Your task to perform on an android device: Go to settings Image 0: 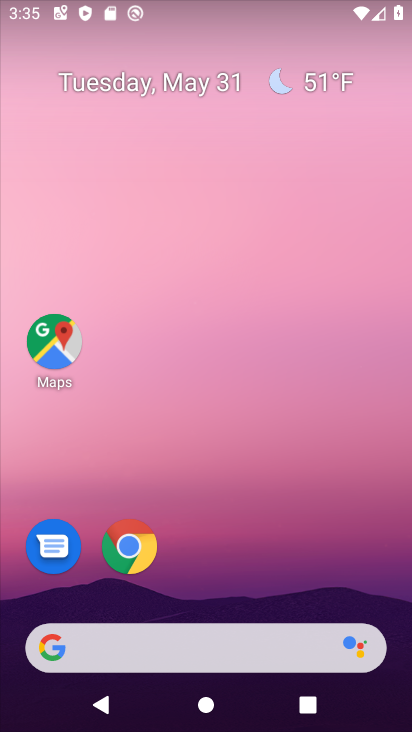
Step 0: drag from (198, 581) to (12, 0)
Your task to perform on an android device: Go to settings Image 1: 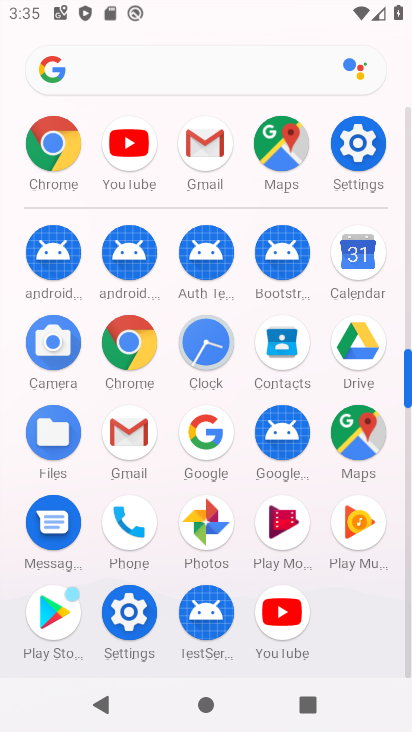
Step 1: click (357, 149)
Your task to perform on an android device: Go to settings Image 2: 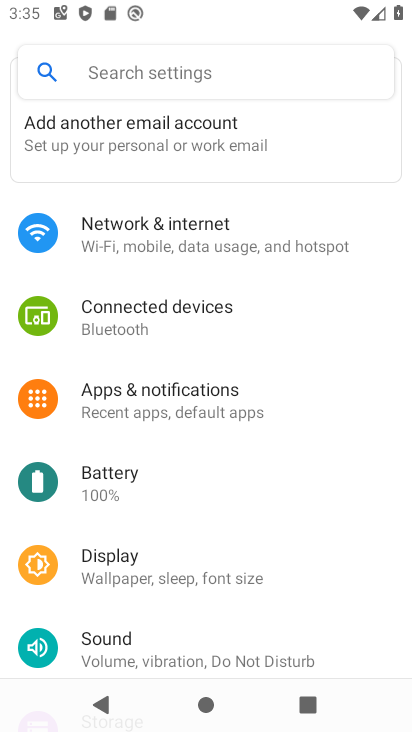
Step 2: task complete